Your task to perform on an android device: turn notification dots off Image 0: 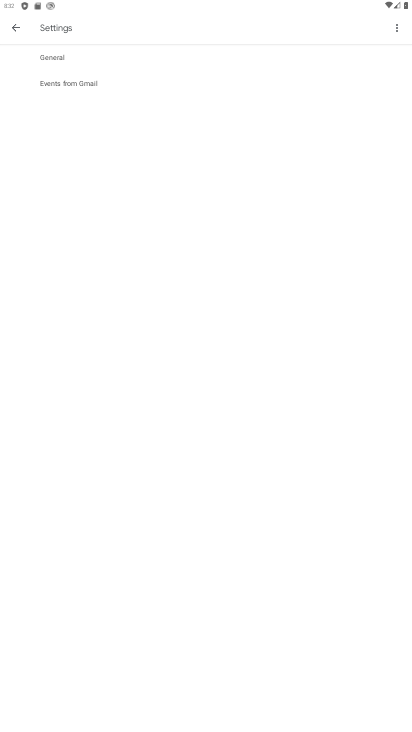
Step 0: press home button
Your task to perform on an android device: turn notification dots off Image 1: 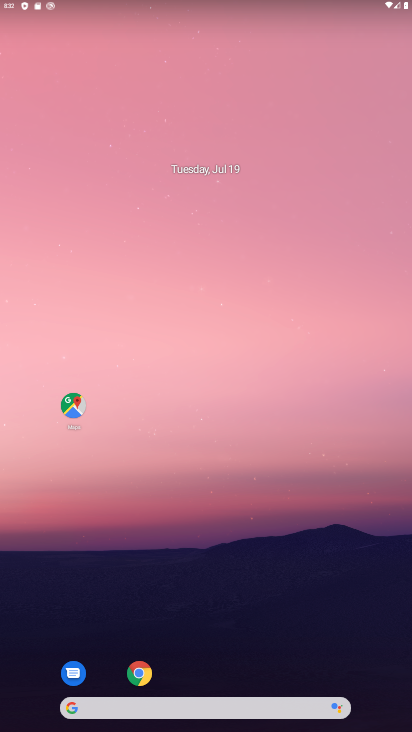
Step 1: drag from (272, 682) to (301, 211)
Your task to perform on an android device: turn notification dots off Image 2: 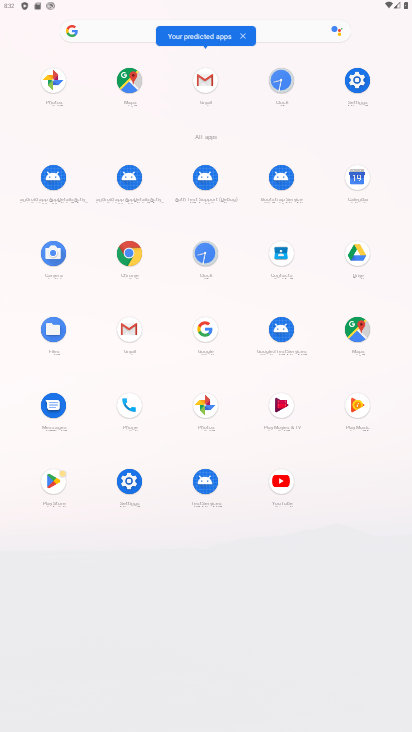
Step 2: click (126, 485)
Your task to perform on an android device: turn notification dots off Image 3: 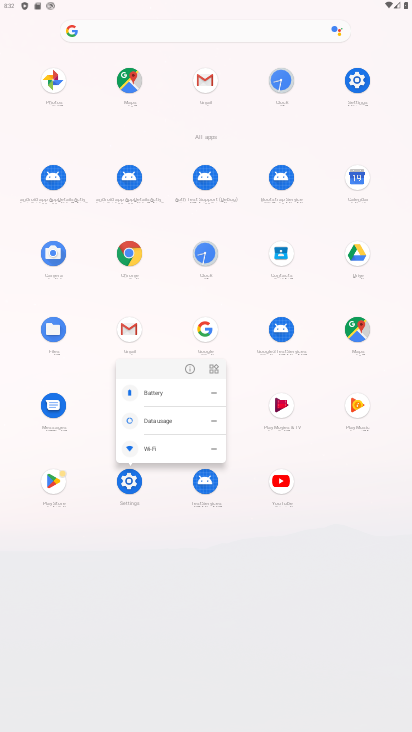
Step 3: click (126, 484)
Your task to perform on an android device: turn notification dots off Image 4: 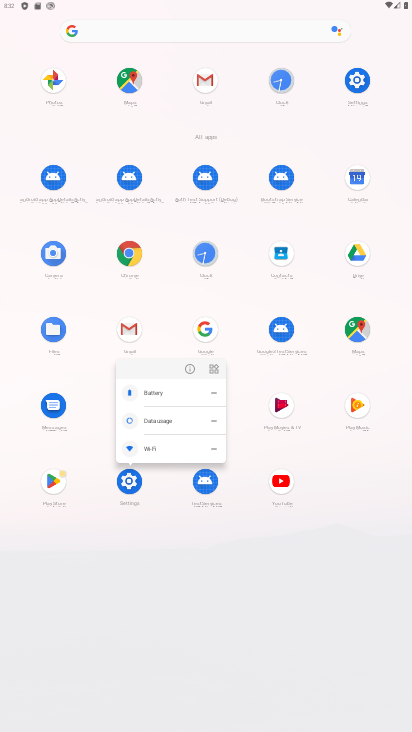
Step 4: click (134, 485)
Your task to perform on an android device: turn notification dots off Image 5: 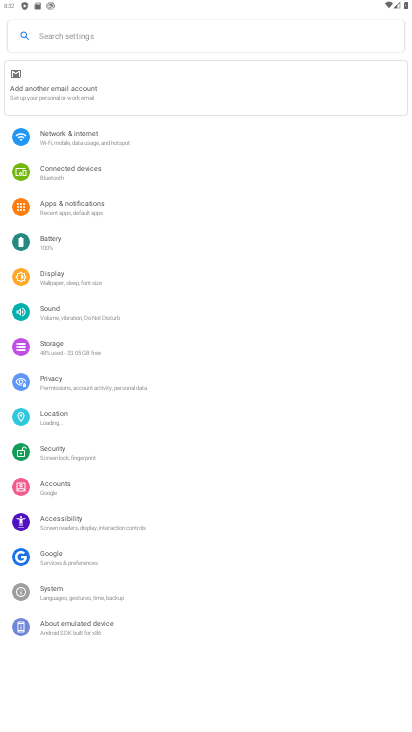
Step 5: click (155, 220)
Your task to perform on an android device: turn notification dots off Image 6: 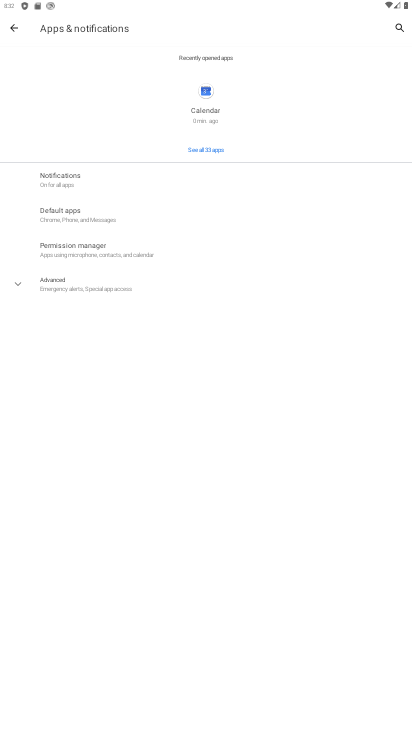
Step 6: click (140, 187)
Your task to perform on an android device: turn notification dots off Image 7: 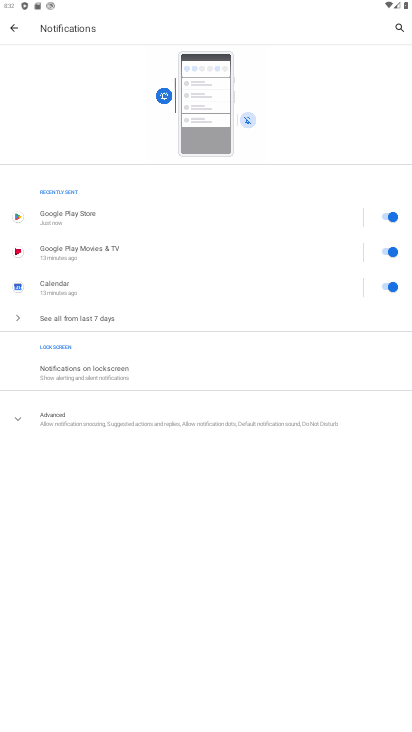
Step 7: click (104, 409)
Your task to perform on an android device: turn notification dots off Image 8: 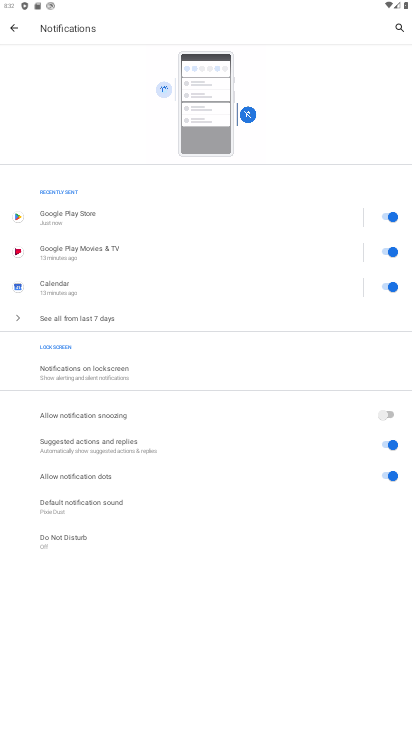
Step 8: click (381, 479)
Your task to perform on an android device: turn notification dots off Image 9: 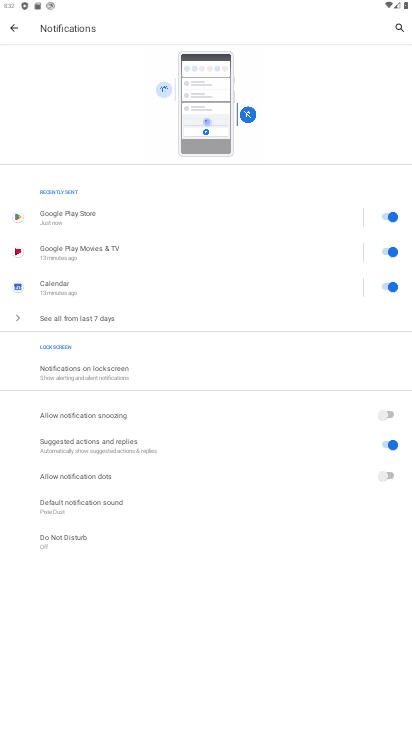
Step 9: task complete